Your task to perform on an android device: Open Chrome and go to settings Image 0: 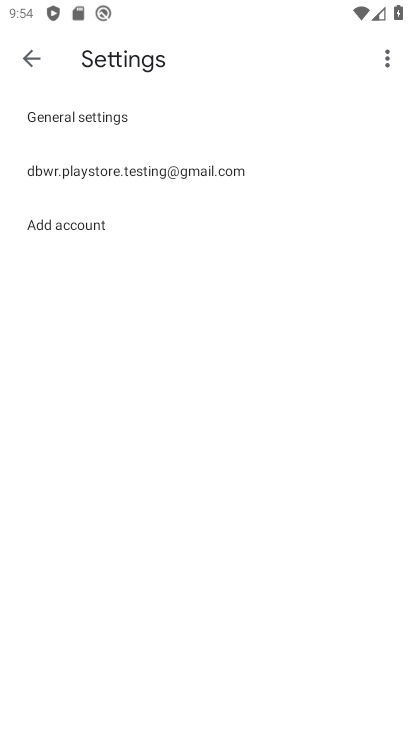
Step 0: press home button
Your task to perform on an android device: Open Chrome and go to settings Image 1: 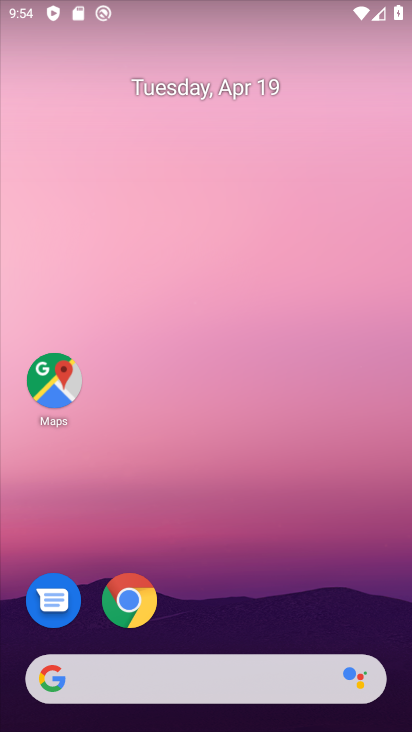
Step 1: drag from (303, 604) to (192, 68)
Your task to perform on an android device: Open Chrome and go to settings Image 2: 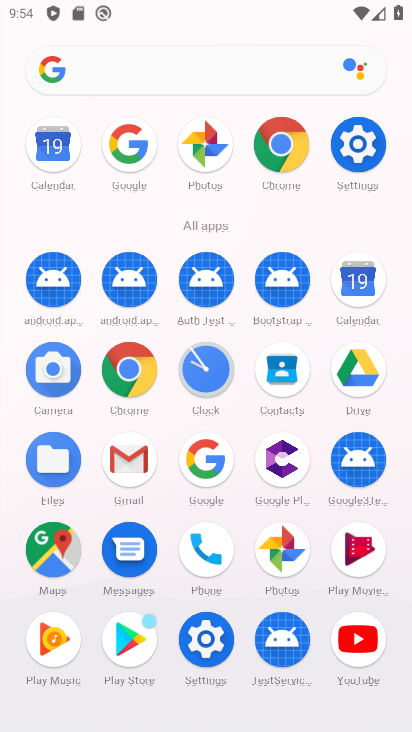
Step 2: click (284, 147)
Your task to perform on an android device: Open Chrome and go to settings Image 3: 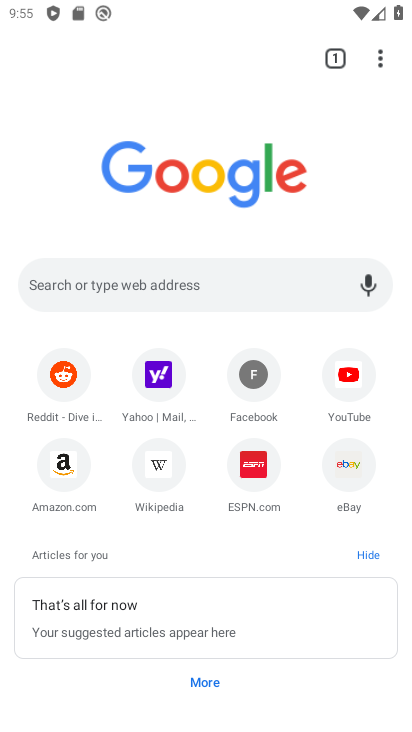
Step 3: click (377, 55)
Your task to perform on an android device: Open Chrome and go to settings Image 4: 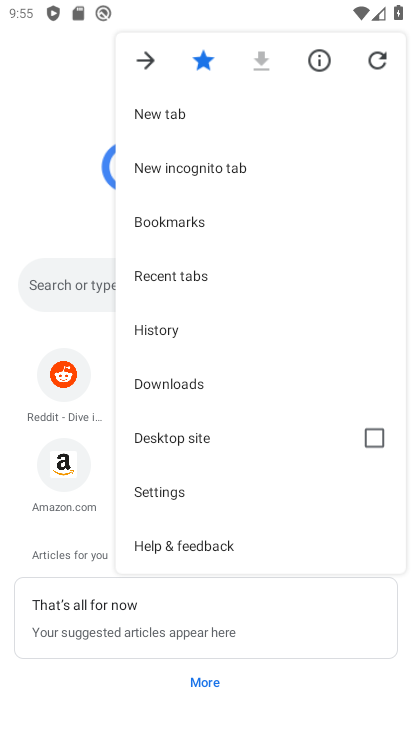
Step 4: click (237, 493)
Your task to perform on an android device: Open Chrome and go to settings Image 5: 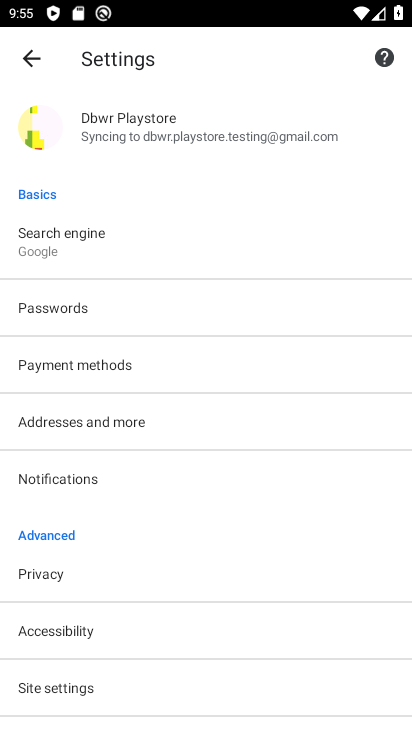
Step 5: task complete